Your task to perform on an android device: What is the news today? Image 0: 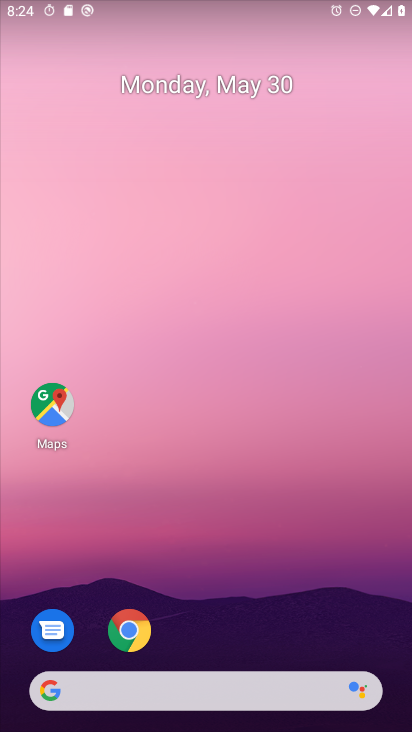
Step 0: drag from (329, 627) to (249, 166)
Your task to perform on an android device: What is the news today? Image 1: 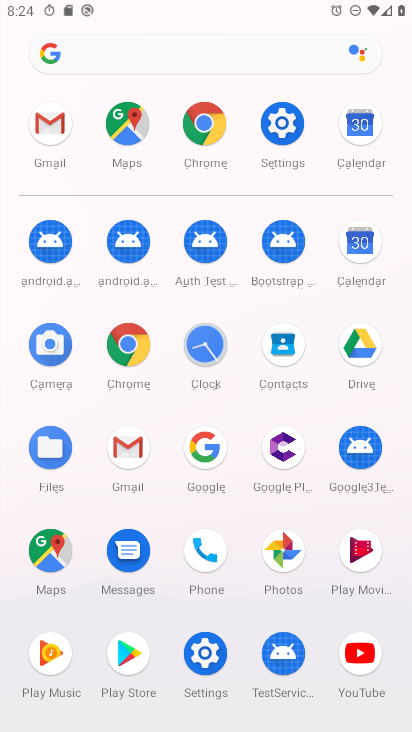
Step 1: click (206, 452)
Your task to perform on an android device: What is the news today? Image 2: 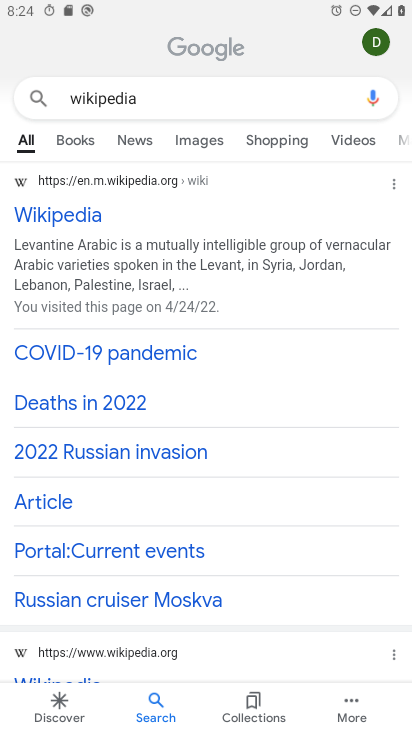
Step 2: press back button
Your task to perform on an android device: What is the news today? Image 3: 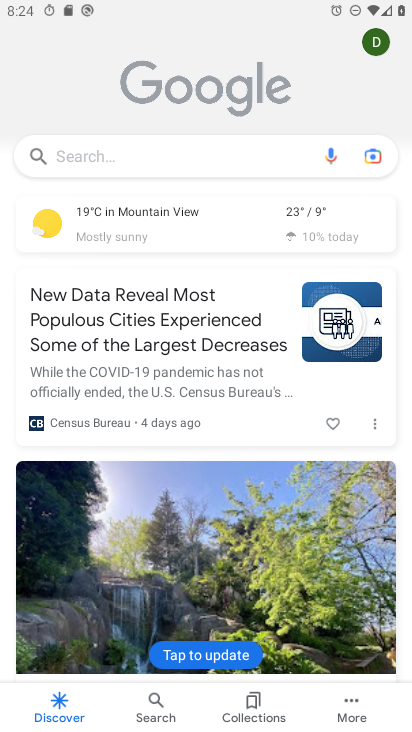
Step 3: click (173, 161)
Your task to perform on an android device: What is the news today? Image 4: 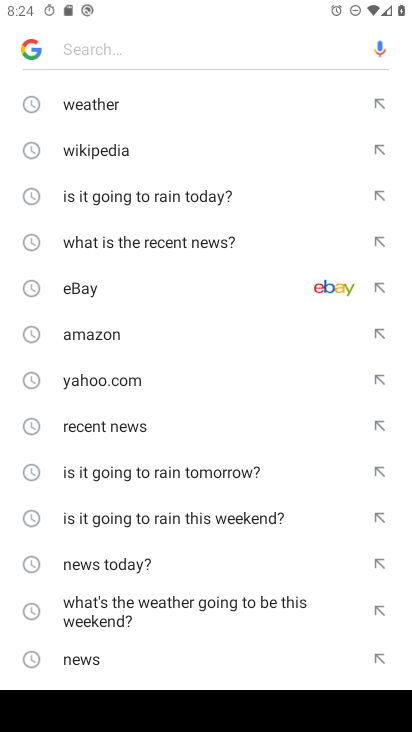
Step 4: drag from (228, 580) to (233, 333)
Your task to perform on an android device: What is the news today? Image 5: 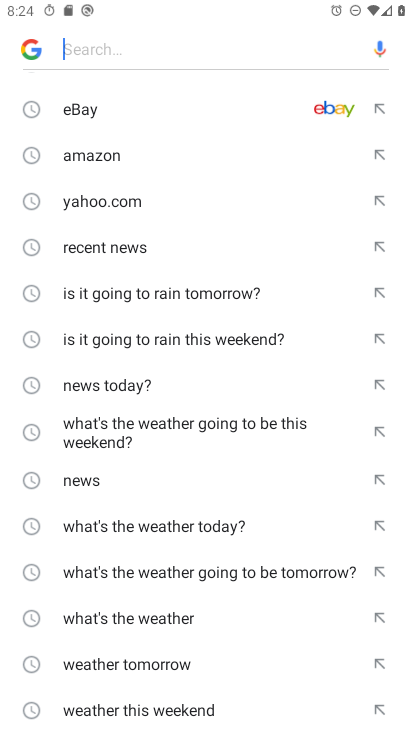
Step 5: drag from (207, 648) to (218, 390)
Your task to perform on an android device: What is the news today? Image 6: 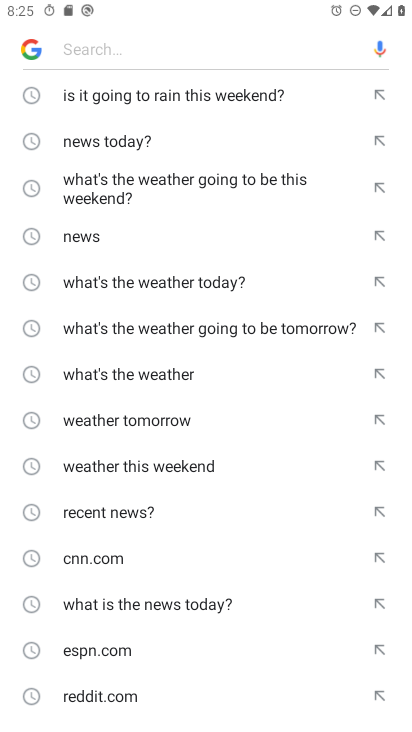
Step 6: click (224, 613)
Your task to perform on an android device: What is the news today? Image 7: 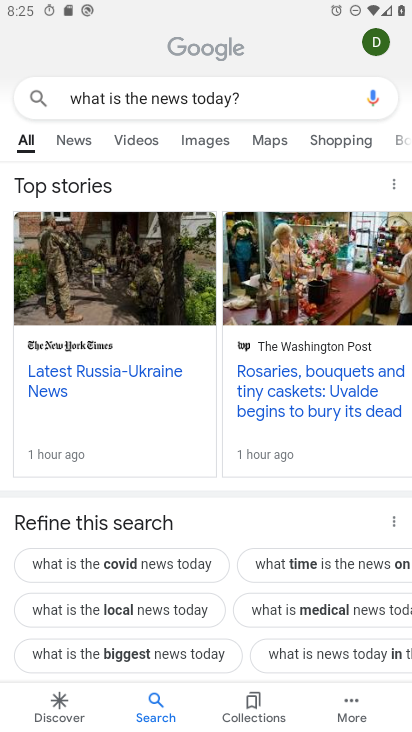
Step 7: task complete